Your task to perform on an android device: Go to Google maps Image 0: 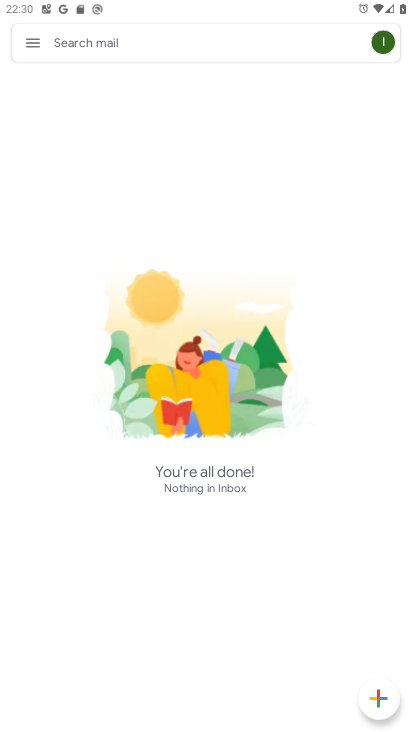
Step 0: press home button
Your task to perform on an android device: Go to Google maps Image 1: 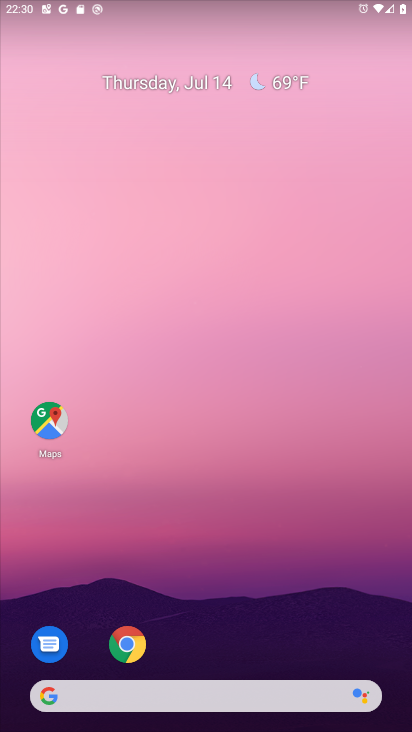
Step 1: click (51, 427)
Your task to perform on an android device: Go to Google maps Image 2: 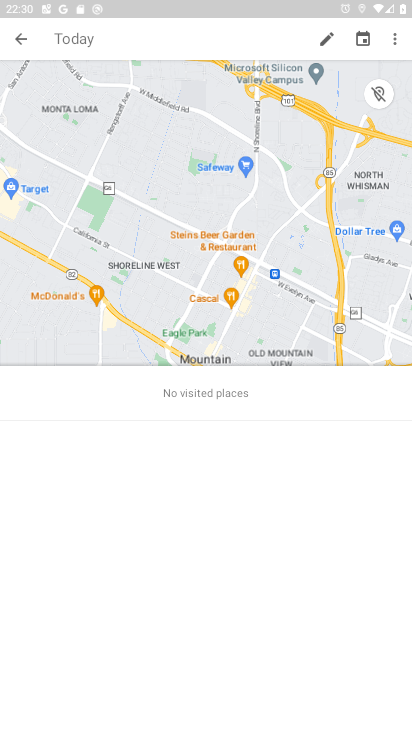
Step 2: click (27, 44)
Your task to perform on an android device: Go to Google maps Image 3: 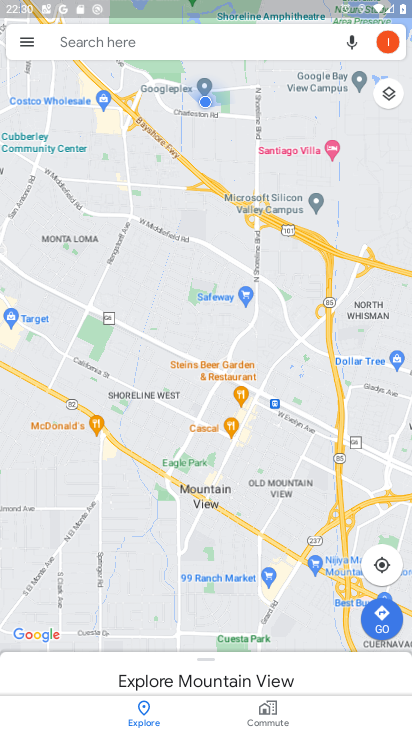
Step 3: task complete